Your task to perform on an android device: Open battery settings Image 0: 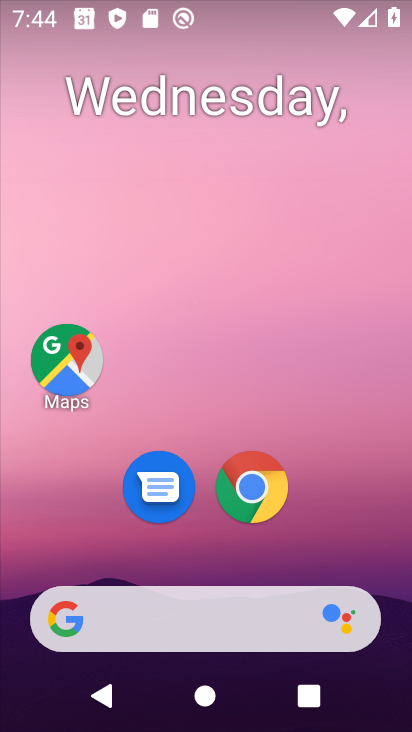
Step 0: drag from (333, 477) to (306, 11)
Your task to perform on an android device: Open battery settings Image 1: 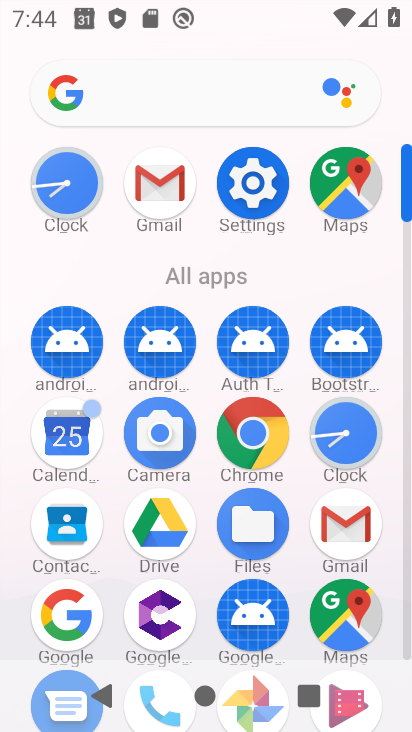
Step 1: click (245, 197)
Your task to perform on an android device: Open battery settings Image 2: 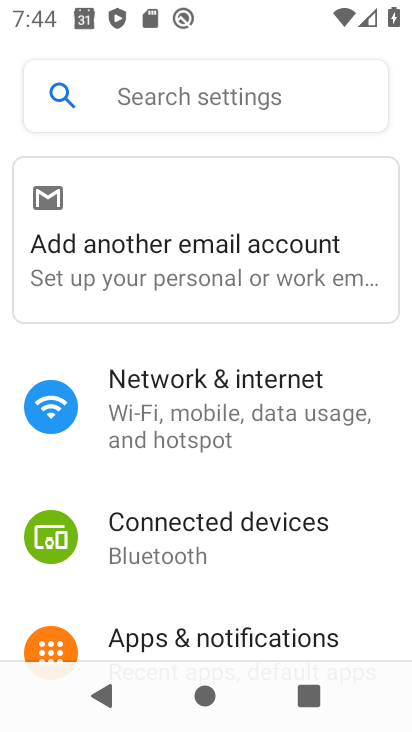
Step 2: drag from (279, 581) to (262, 73)
Your task to perform on an android device: Open battery settings Image 3: 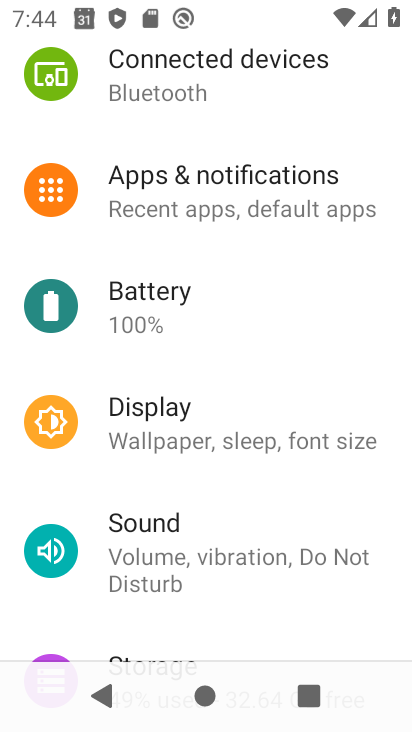
Step 3: click (148, 305)
Your task to perform on an android device: Open battery settings Image 4: 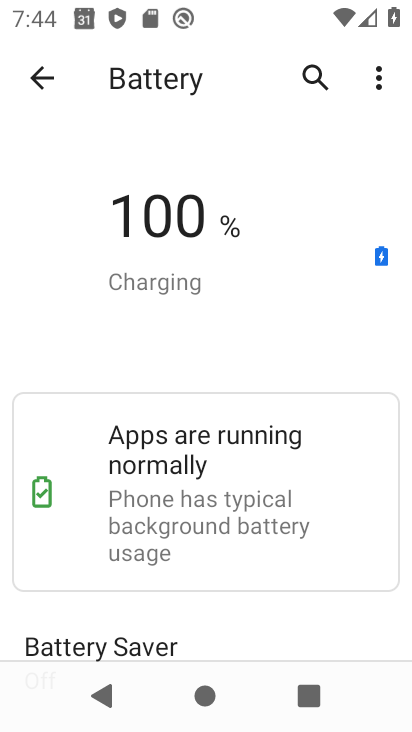
Step 4: task complete